Your task to perform on an android device: toggle wifi Image 0: 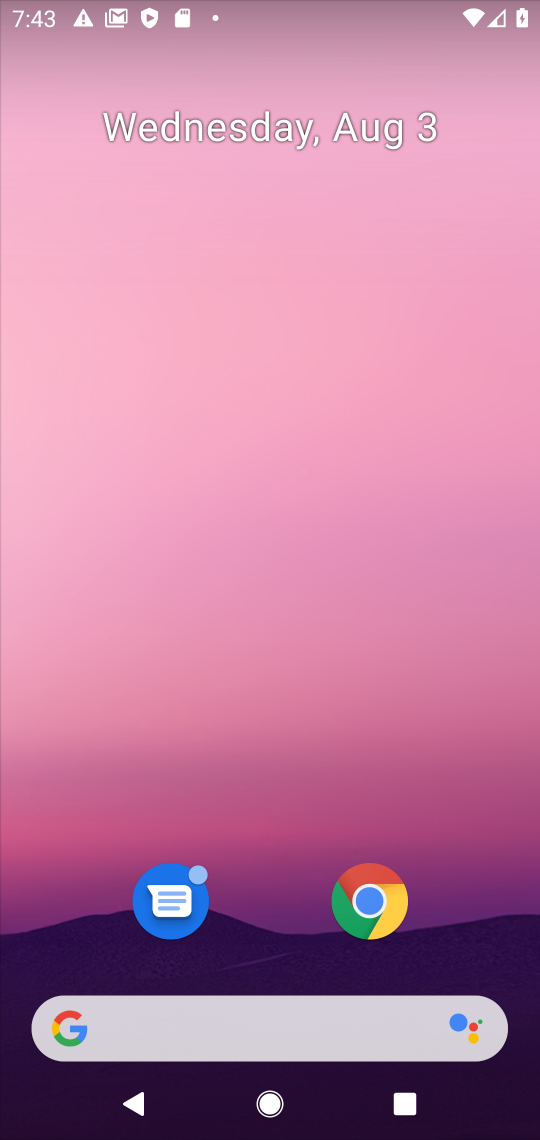
Step 0: drag from (372, 12) to (512, 908)
Your task to perform on an android device: toggle wifi Image 1: 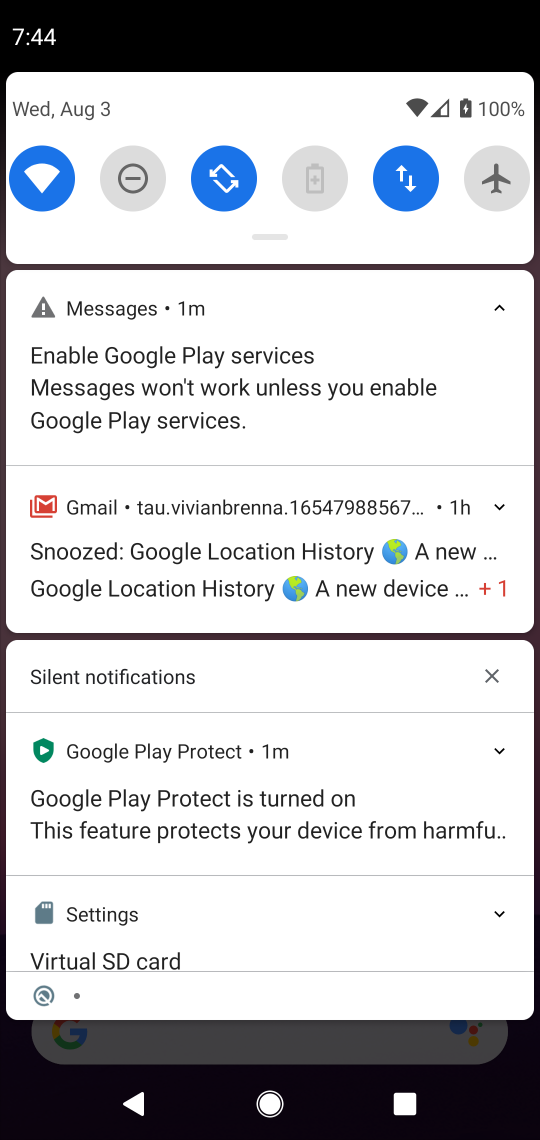
Step 1: click (56, 163)
Your task to perform on an android device: toggle wifi Image 2: 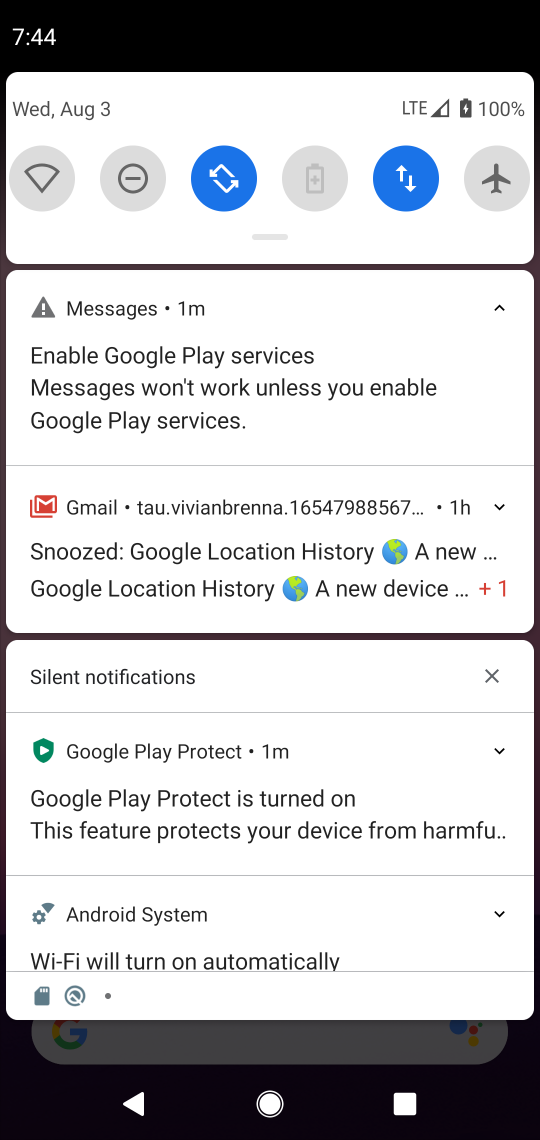
Step 2: task complete